Your task to perform on an android device: Go to sound settings Image 0: 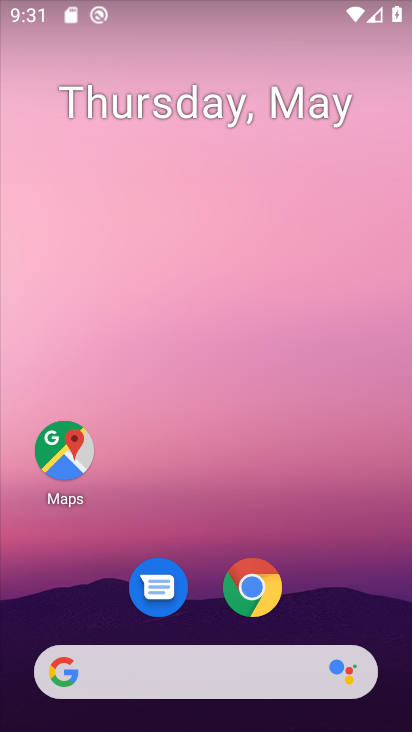
Step 0: drag from (286, 287) to (299, 13)
Your task to perform on an android device: Go to sound settings Image 1: 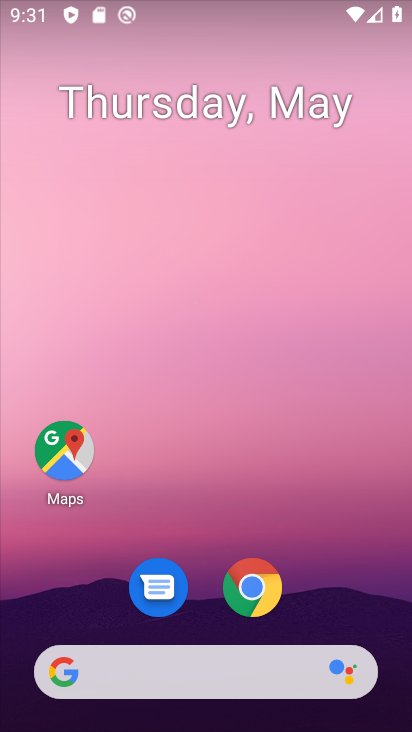
Step 1: drag from (282, 618) to (387, 108)
Your task to perform on an android device: Go to sound settings Image 2: 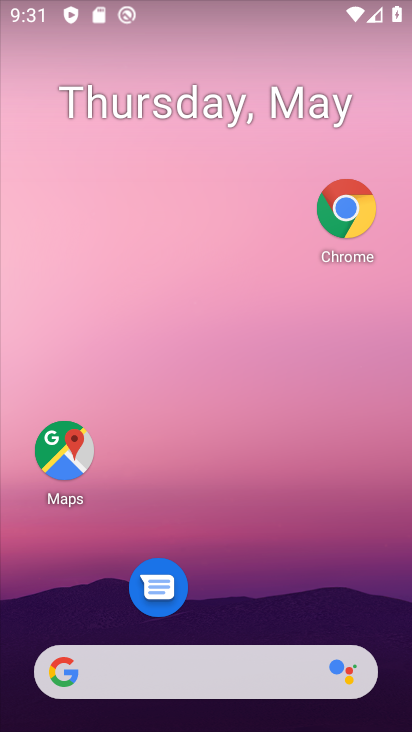
Step 2: drag from (250, 609) to (285, 70)
Your task to perform on an android device: Go to sound settings Image 3: 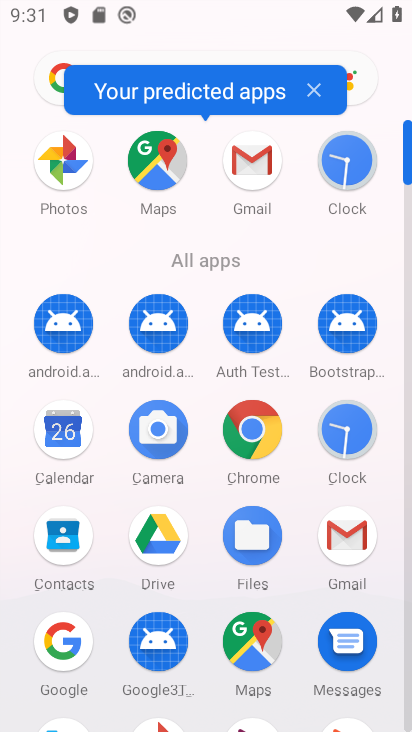
Step 3: drag from (270, 584) to (314, 263)
Your task to perform on an android device: Go to sound settings Image 4: 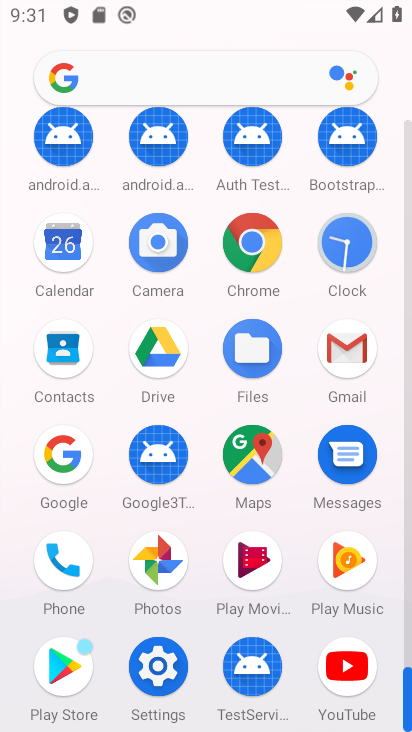
Step 4: click (153, 669)
Your task to perform on an android device: Go to sound settings Image 5: 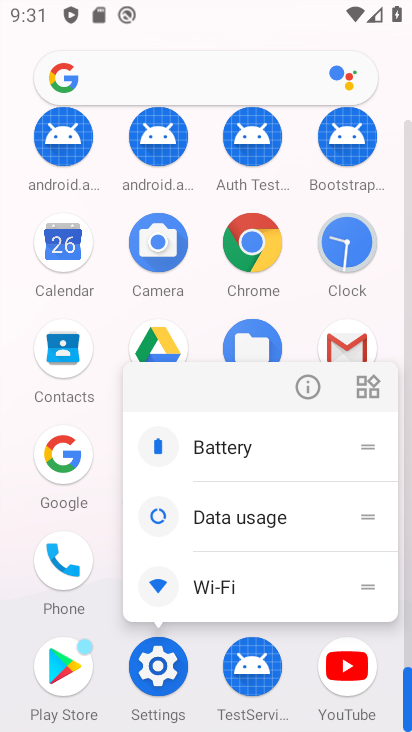
Step 5: click (153, 669)
Your task to perform on an android device: Go to sound settings Image 6: 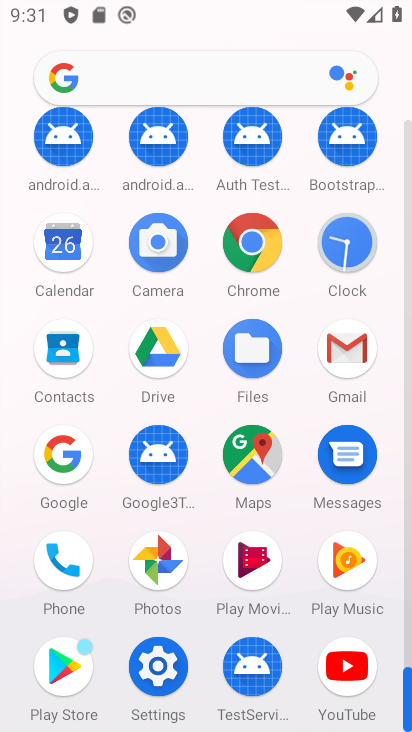
Step 6: click (158, 673)
Your task to perform on an android device: Go to sound settings Image 7: 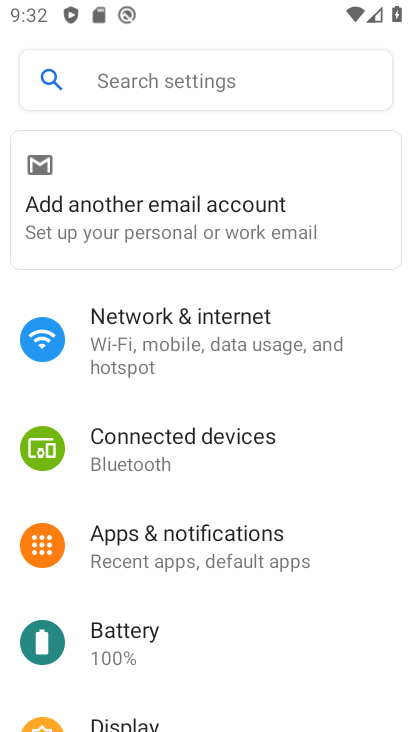
Step 7: drag from (115, 678) to (268, 415)
Your task to perform on an android device: Go to sound settings Image 8: 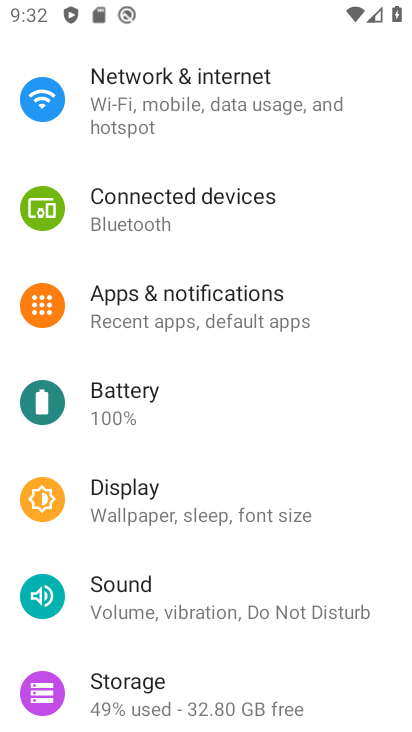
Step 8: click (176, 610)
Your task to perform on an android device: Go to sound settings Image 9: 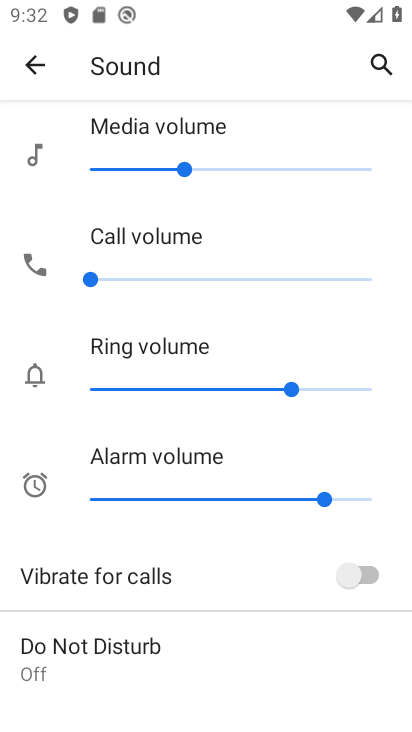
Step 9: task complete